Your task to perform on an android device: delete the emails in spam in the gmail app Image 0: 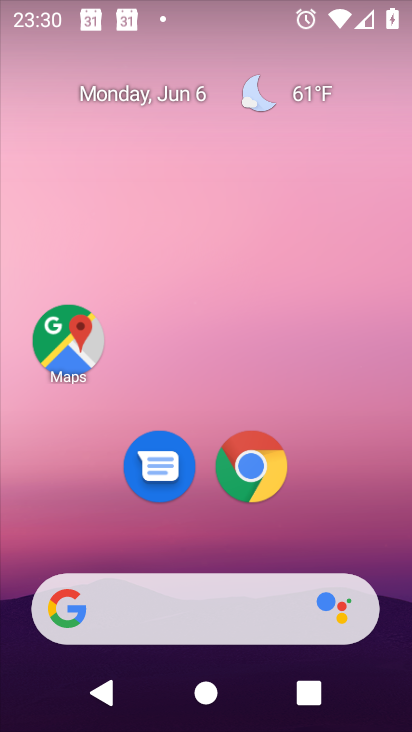
Step 0: press home button
Your task to perform on an android device: delete the emails in spam in the gmail app Image 1: 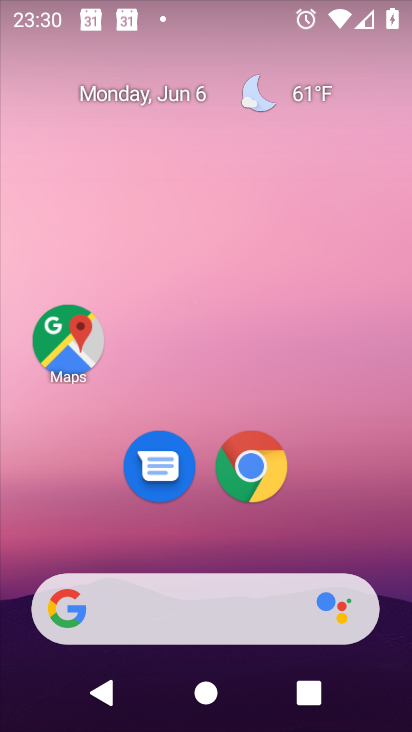
Step 1: drag from (396, 578) to (270, 25)
Your task to perform on an android device: delete the emails in spam in the gmail app Image 2: 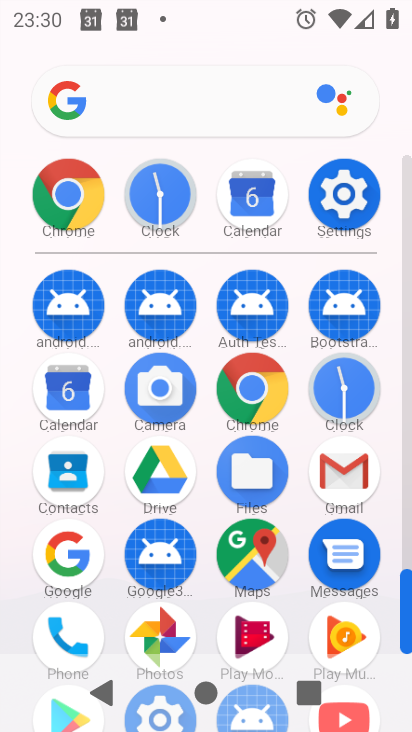
Step 2: click (361, 477)
Your task to perform on an android device: delete the emails in spam in the gmail app Image 3: 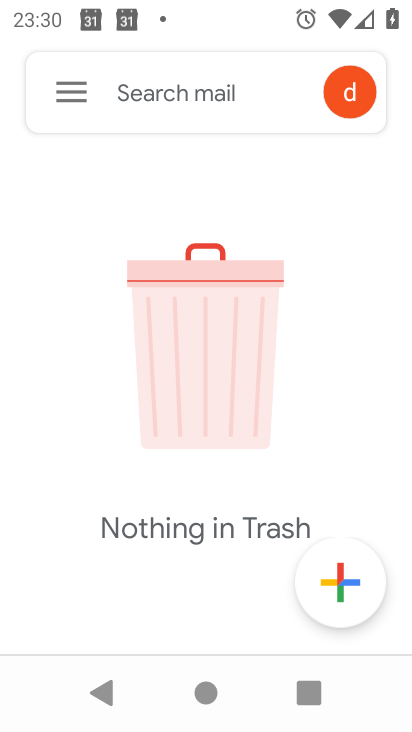
Step 3: click (58, 93)
Your task to perform on an android device: delete the emails in spam in the gmail app Image 4: 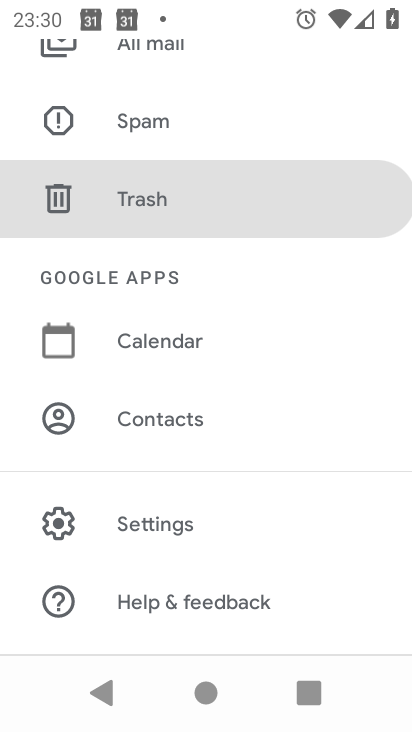
Step 4: task complete